Your task to perform on an android device: toggle notification dots Image 0: 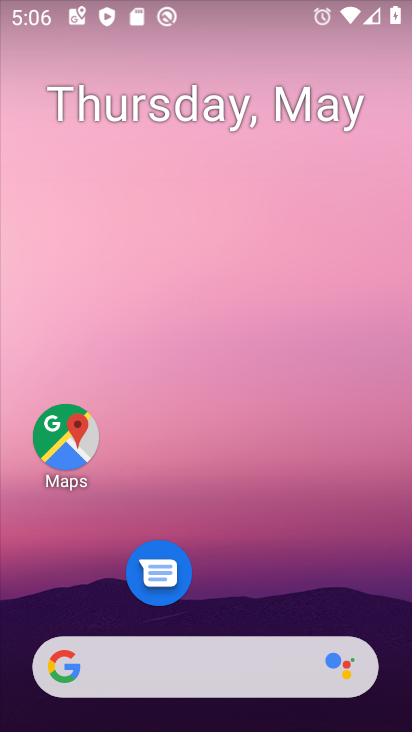
Step 0: drag from (260, 602) to (239, 90)
Your task to perform on an android device: toggle notification dots Image 1: 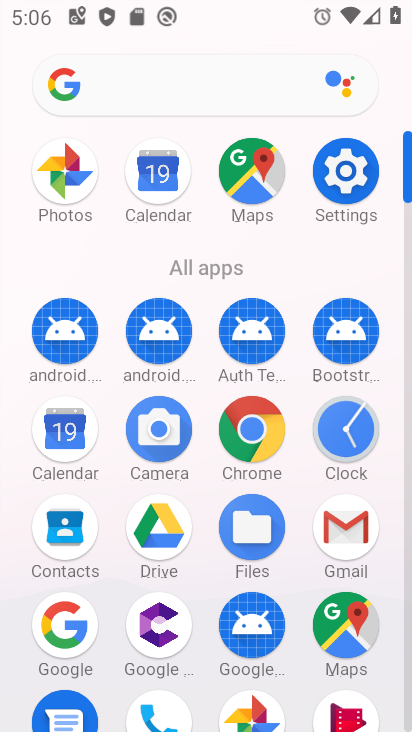
Step 1: drag from (205, 440) to (197, 250)
Your task to perform on an android device: toggle notification dots Image 2: 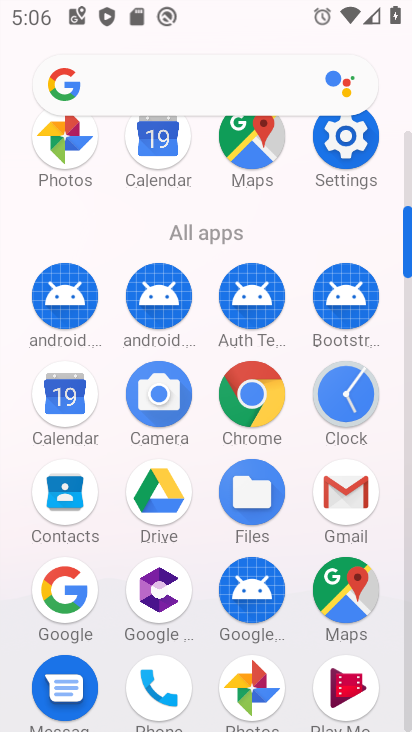
Step 2: click (355, 147)
Your task to perform on an android device: toggle notification dots Image 3: 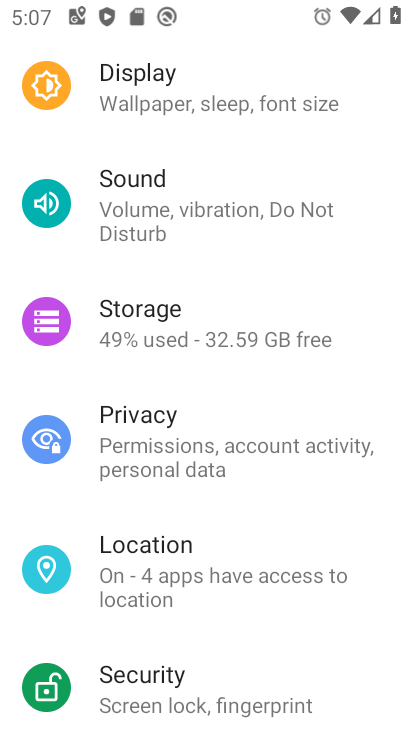
Step 3: drag from (219, 276) to (200, 619)
Your task to perform on an android device: toggle notification dots Image 4: 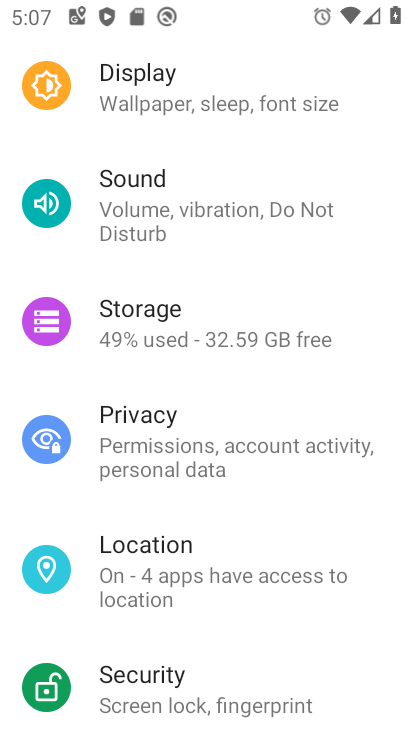
Step 4: drag from (217, 166) to (210, 425)
Your task to perform on an android device: toggle notification dots Image 5: 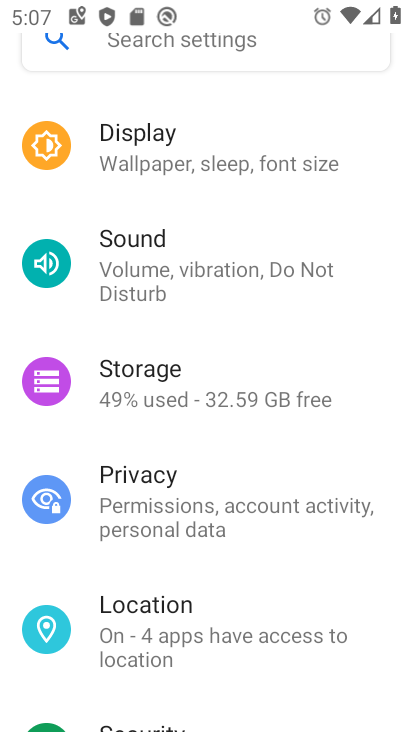
Step 5: drag from (223, 182) to (221, 556)
Your task to perform on an android device: toggle notification dots Image 6: 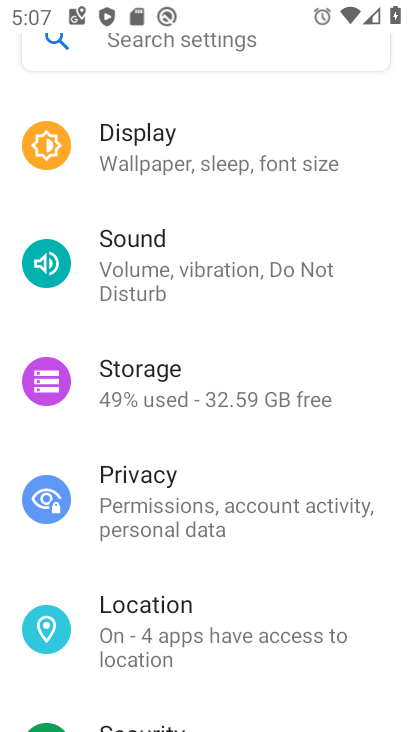
Step 6: drag from (187, 195) to (214, 499)
Your task to perform on an android device: toggle notification dots Image 7: 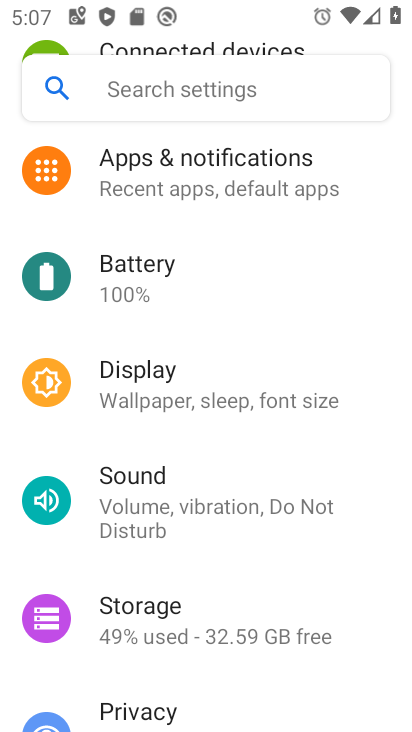
Step 7: click (179, 185)
Your task to perform on an android device: toggle notification dots Image 8: 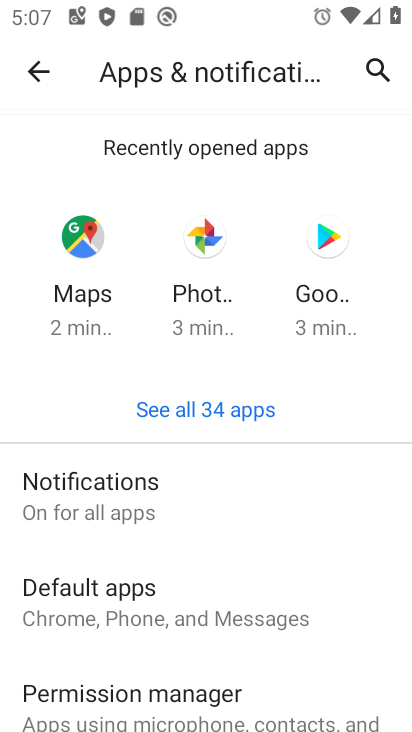
Step 8: click (132, 505)
Your task to perform on an android device: toggle notification dots Image 9: 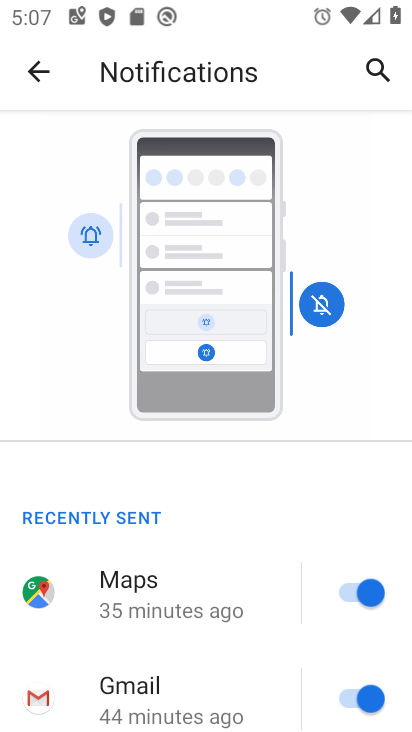
Step 9: drag from (162, 513) to (203, 324)
Your task to perform on an android device: toggle notification dots Image 10: 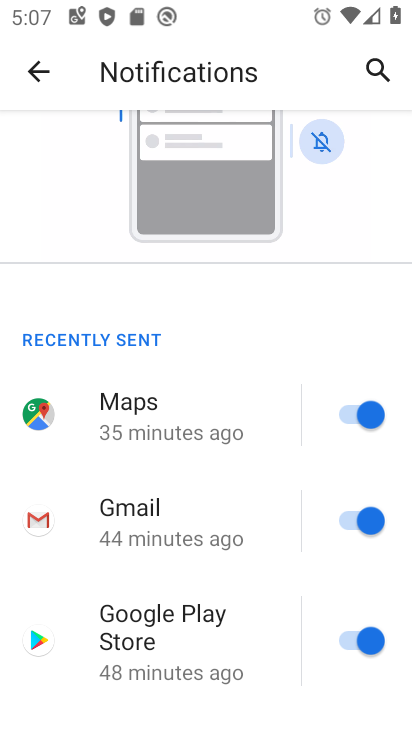
Step 10: drag from (254, 419) to (284, 369)
Your task to perform on an android device: toggle notification dots Image 11: 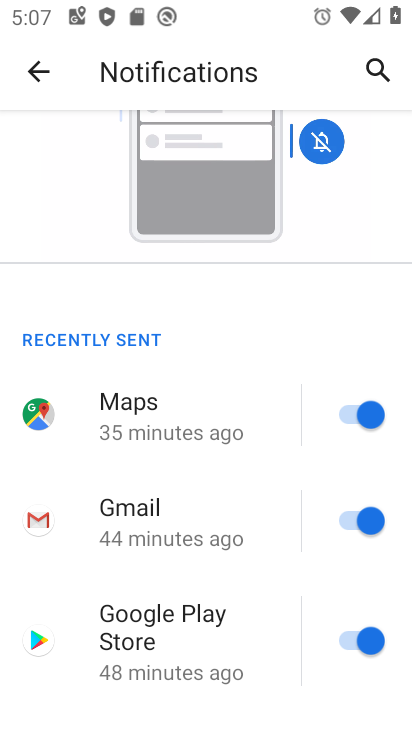
Step 11: drag from (175, 608) to (226, 399)
Your task to perform on an android device: toggle notification dots Image 12: 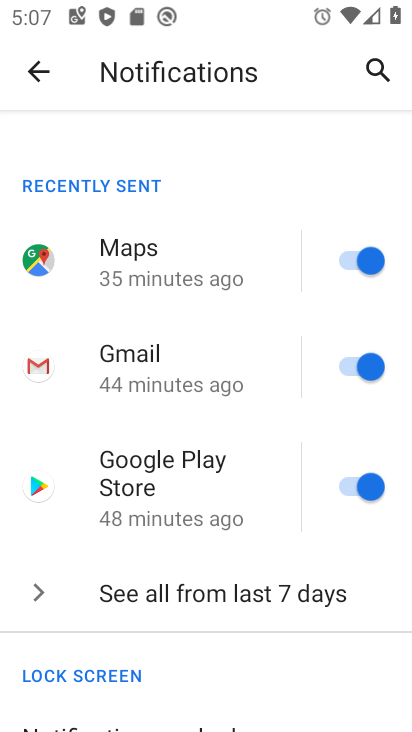
Step 12: drag from (194, 633) to (194, 339)
Your task to perform on an android device: toggle notification dots Image 13: 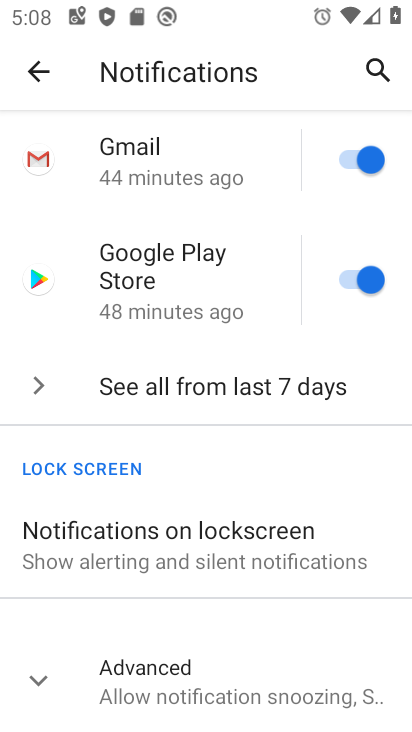
Step 13: drag from (230, 507) to (239, 348)
Your task to perform on an android device: toggle notification dots Image 14: 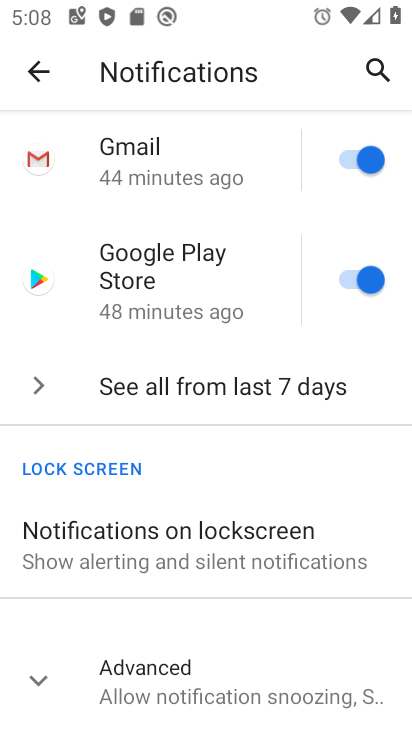
Step 14: click (139, 673)
Your task to perform on an android device: toggle notification dots Image 15: 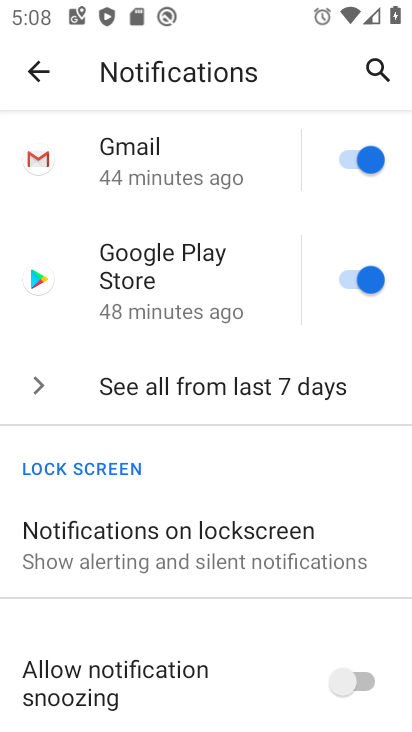
Step 15: drag from (161, 461) to (181, 338)
Your task to perform on an android device: toggle notification dots Image 16: 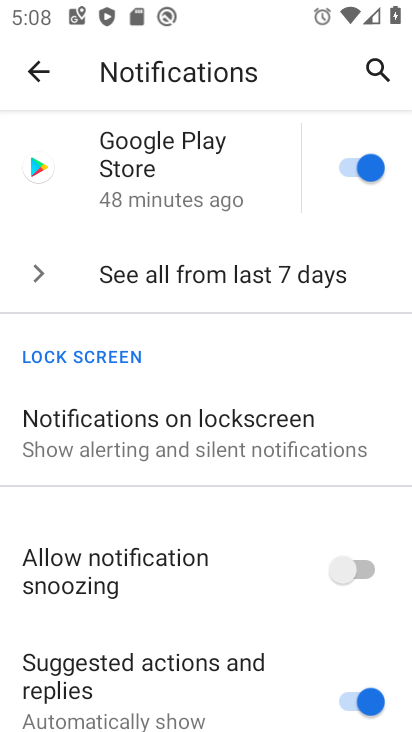
Step 16: drag from (124, 668) to (130, 345)
Your task to perform on an android device: toggle notification dots Image 17: 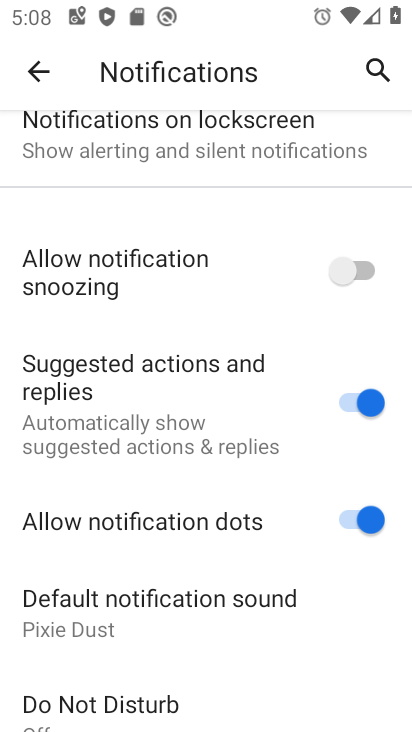
Step 17: drag from (161, 605) to (192, 394)
Your task to perform on an android device: toggle notification dots Image 18: 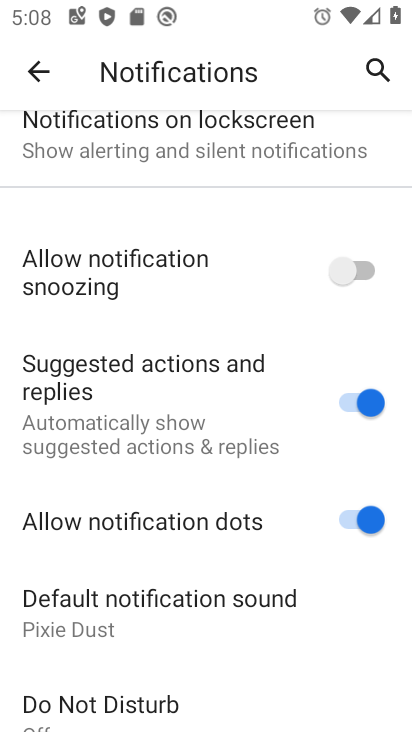
Step 18: click (350, 516)
Your task to perform on an android device: toggle notification dots Image 19: 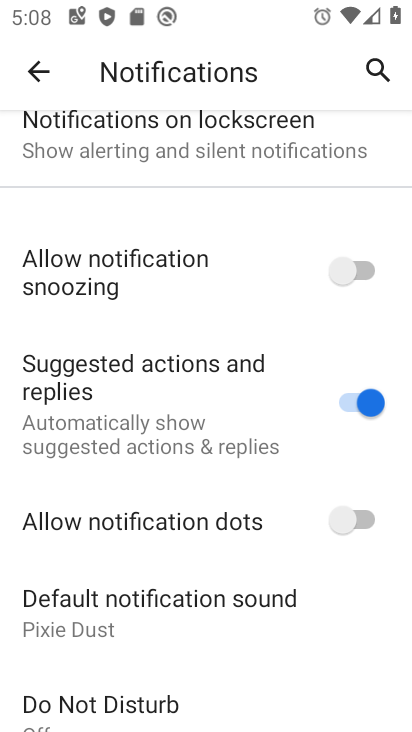
Step 19: task complete